Your task to perform on an android device: Search for sushi restaurants on Maps Image 0: 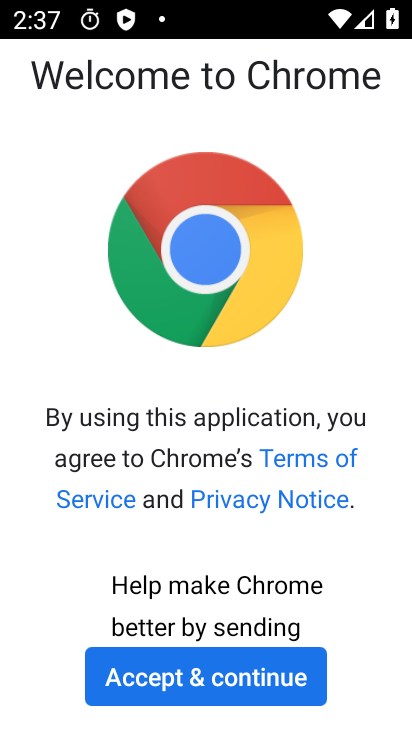
Step 0: click (199, 683)
Your task to perform on an android device: Search for sushi restaurants on Maps Image 1: 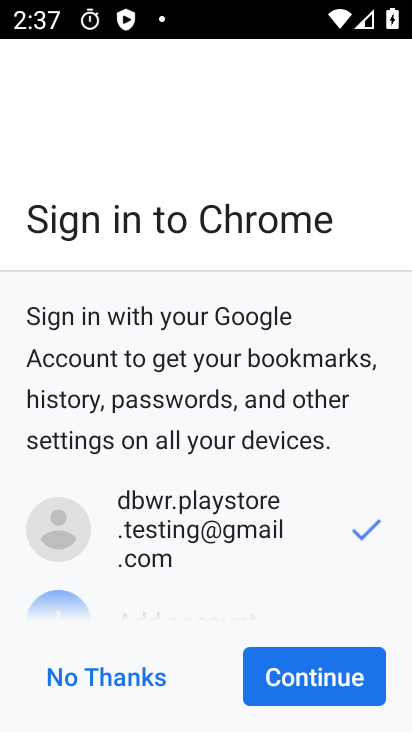
Step 1: press home button
Your task to perform on an android device: Search for sushi restaurants on Maps Image 2: 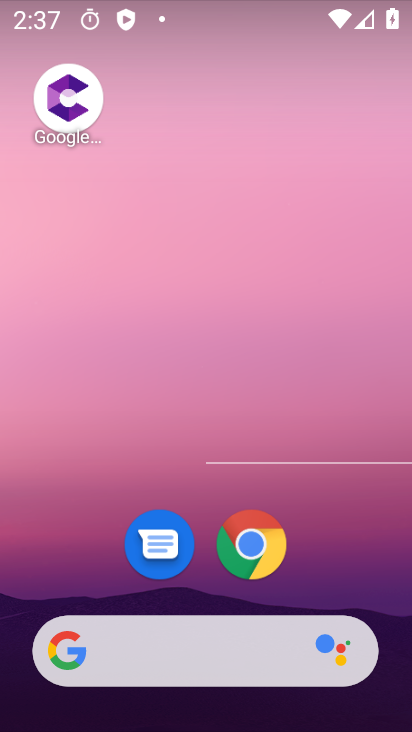
Step 2: drag from (192, 622) to (215, 227)
Your task to perform on an android device: Search for sushi restaurants on Maps Image 3: 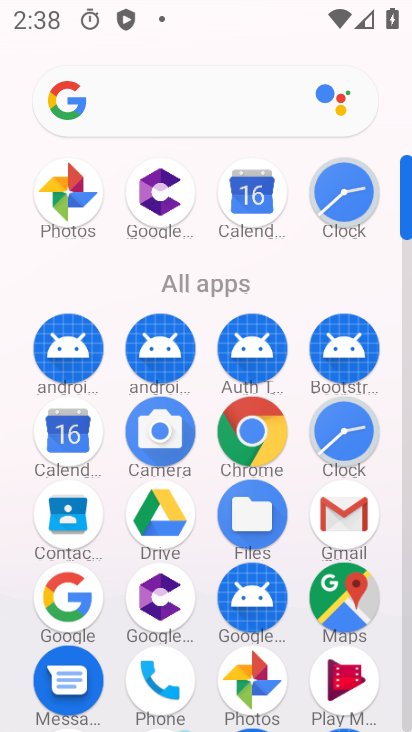
Step 3: click (345, 605)
Your task to perform on an android device: Search for sushi restaurants on Maps Image 4: 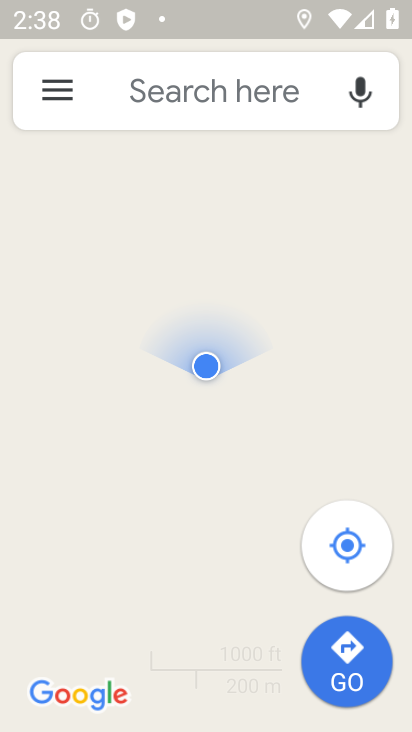
Step 4: click (175, 99)
Your task to perform on an android device: Search for sushi restaurants on Maps Image 5: 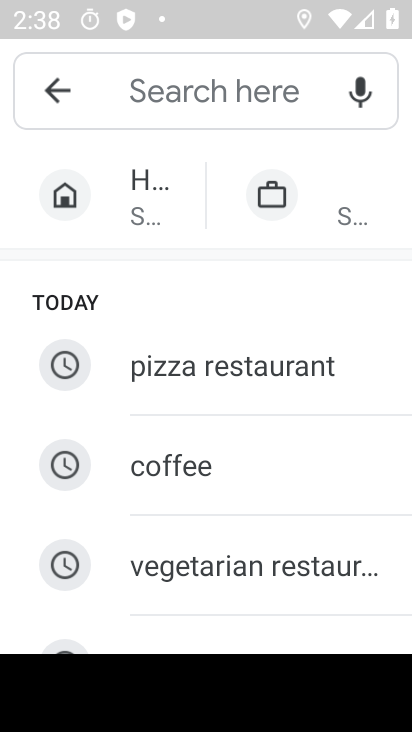
Step 5: type "sushi restaurants"
Your task to perform on an android device: Search for sushi restaurants on Maps Image 6: 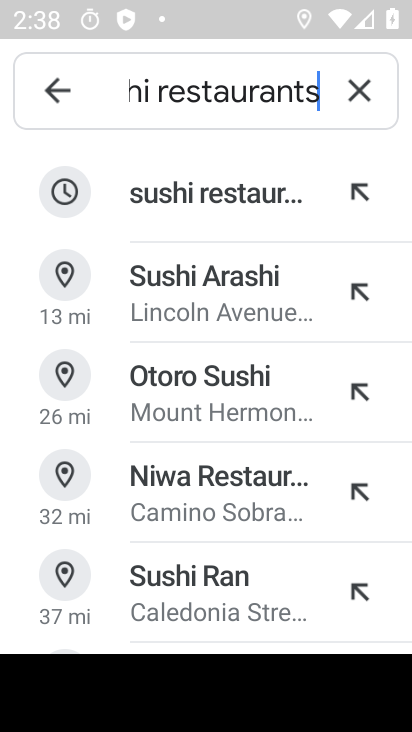
Step 6: click (216, 199)
Your task to perform on an android device: Search for sushi restaurants on Maps Image 7: 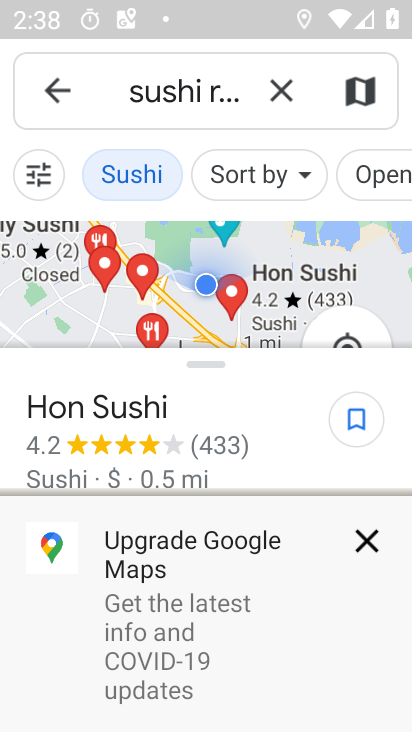
Step 7: task complete